Your task to perform on an android device: Show me popular games on the Play Store Image 0: 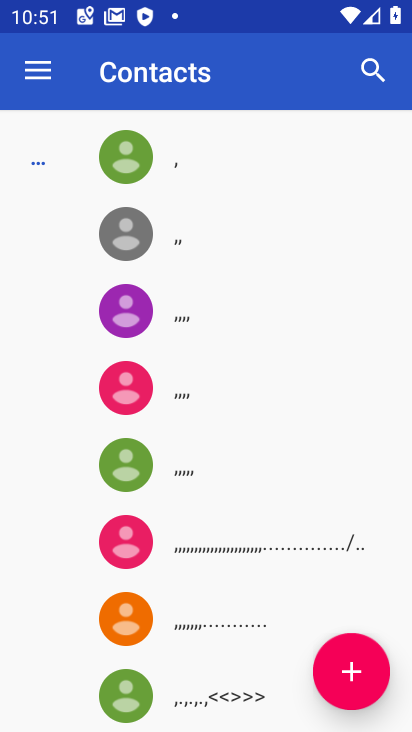
Step 0: press home button
Your task to perform on an android device: Show me popular games on the Play Store Image 1: 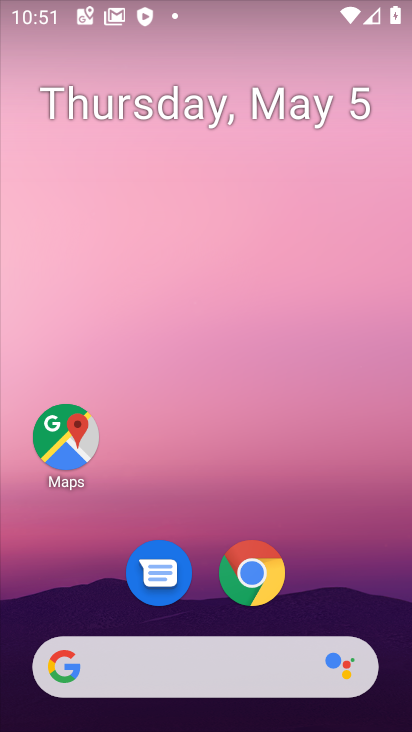
Step 1: drag from (306, 609) to (350, 295)
Your task to perform on an android device: Show me popular games on the Play Store Image 2: 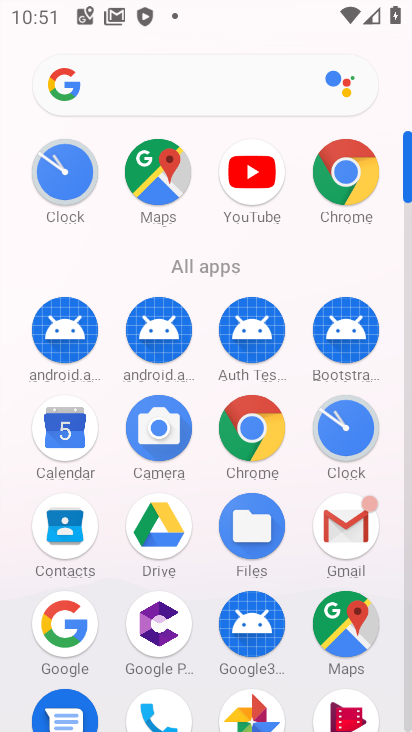
Step 2: drag from (211, 583) to (262, 247)
Your task to perform on an android device: Show me popular games on the Play Store Image 3: 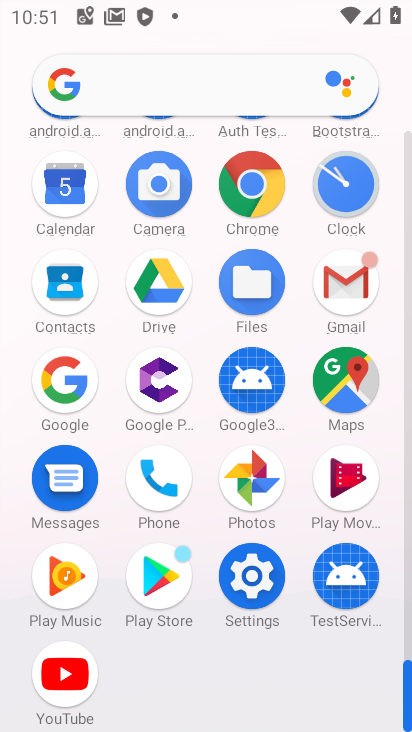
Step 3: click (153, 582)
Your task to perform on an android device: Show me popular games on the Play Store Image 4: 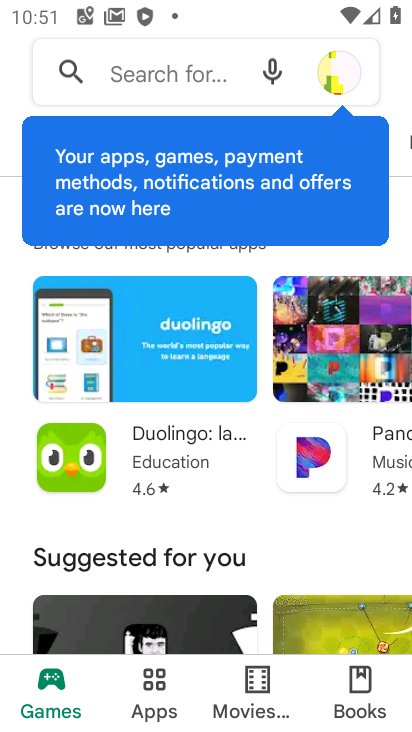
Step 4: click (161, 686)
Your task to perform on an android device: Show me popular games on the Play Store Image 5: 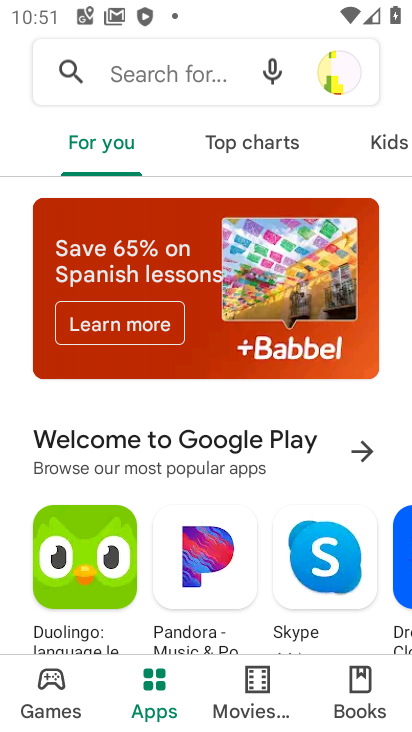
Step 5: click (60, 665)
Your task to perform on an android device: Show me popular games on the Play Store Image 6: 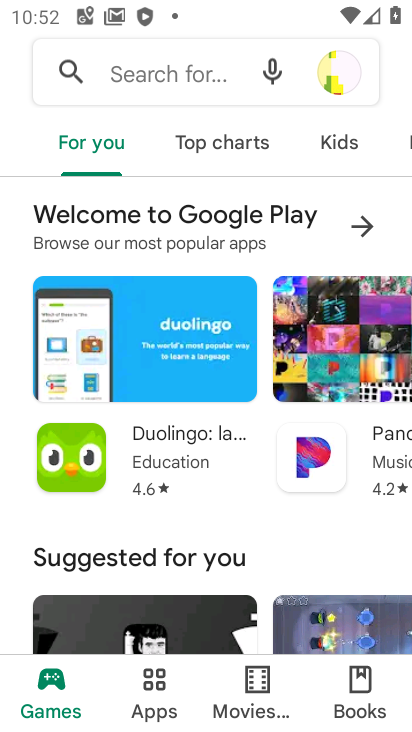
Step 6: task complete